Your task to perform on an android device: open a bookmark in the chrome app Image 0: 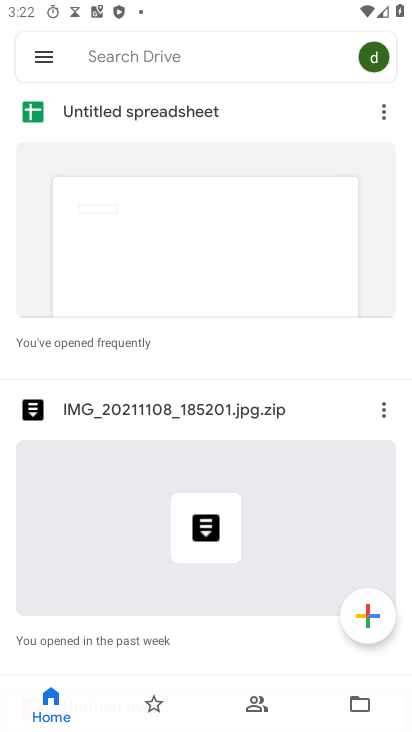
Step 0: press home button
Your task to perform on an android device: open a bookmark in the chrome app Image 1: 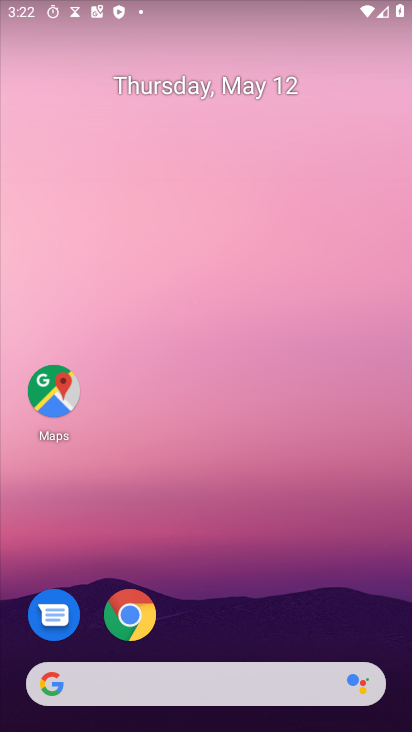
Step 1: click (132, 597)
Your task to perform on an android device: open a bookmark in the chrome app Image 2: 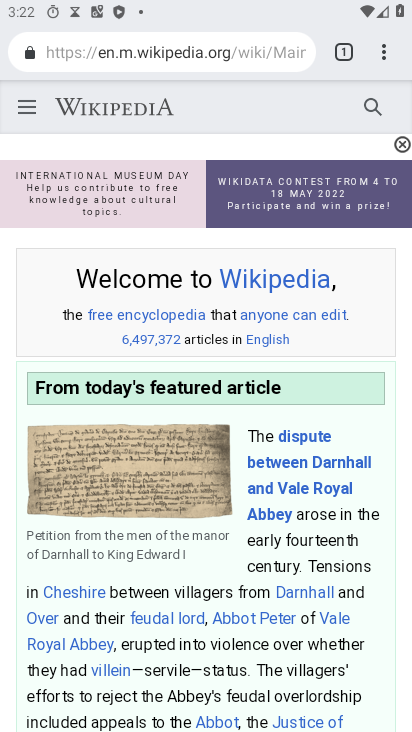
Step 2: click (386, 57)
Your task to perform on an android device: open a bookmark in the chrome app Image 3: 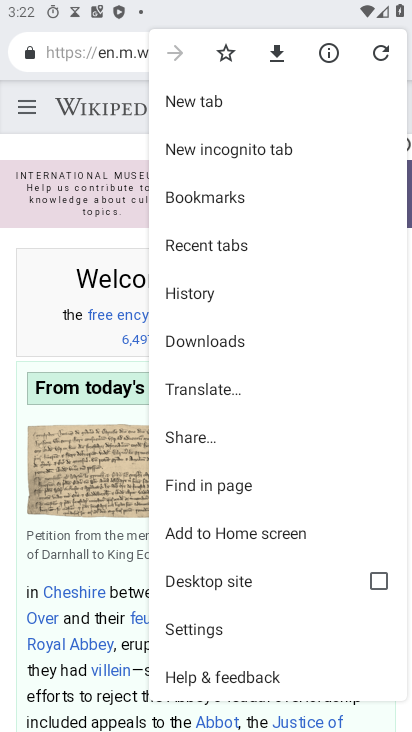
Step 3: click (242, 187)
Your task to perform on an android device: open a bookmark in the chrome app Image 4: 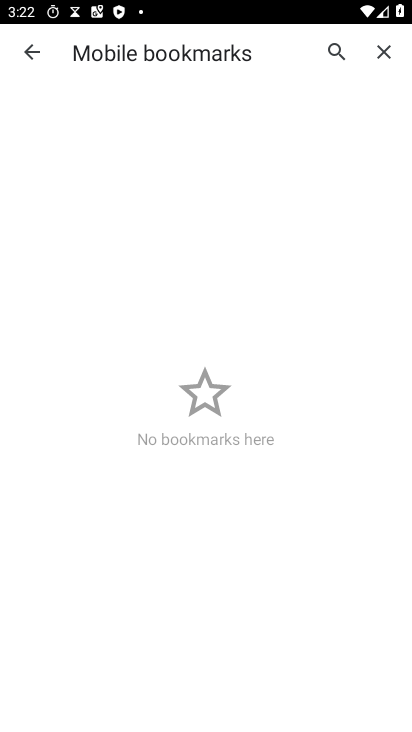
Step 4: task complete